Your task to perform on an android device: delete the emails in spam in the gmail app Image 0: 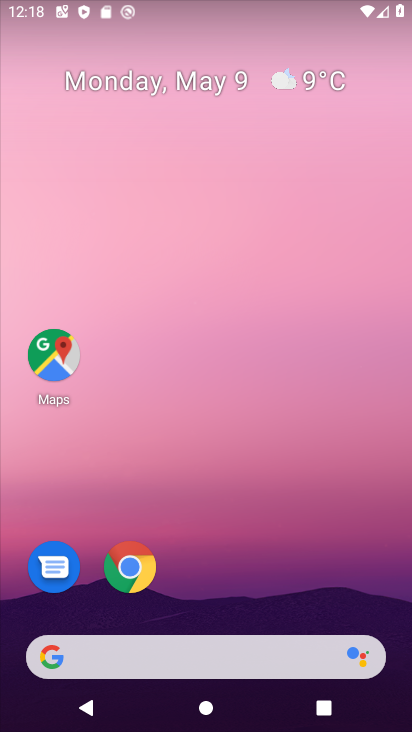
Step 0: drag from (222, 672) to (170, 254)
Your task to perform on an android device: delete the emails in spam in the gmail app Image 1: 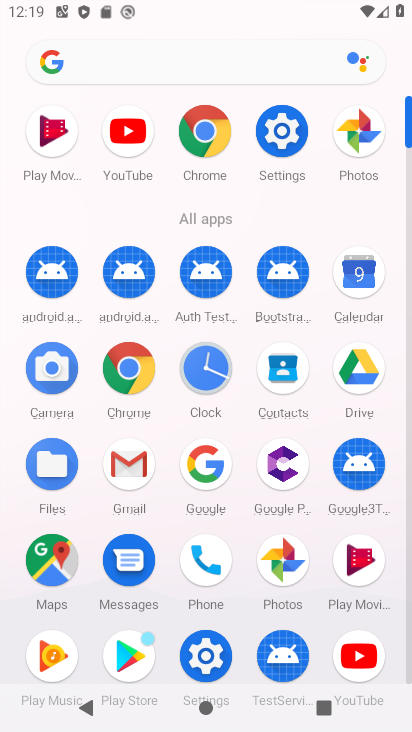
Step 1: click (127, 449)
Your task to perform on an android device: delete the emails in spam in the gmail app Image 2: 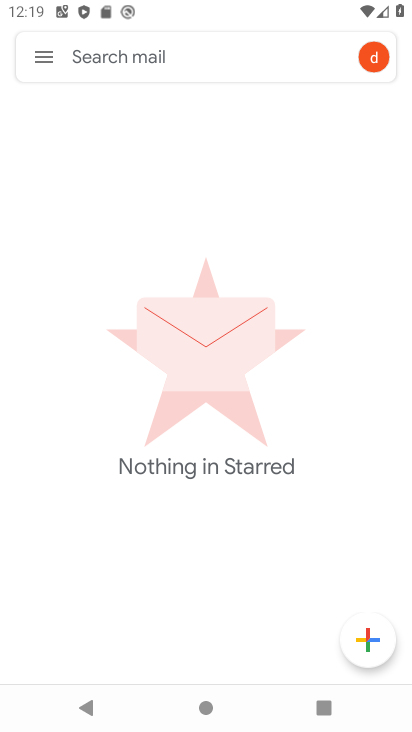
Step 2: click (43, 63)
Your task to perform on an android device: delete the emails in spam in the gmail app Image 3: 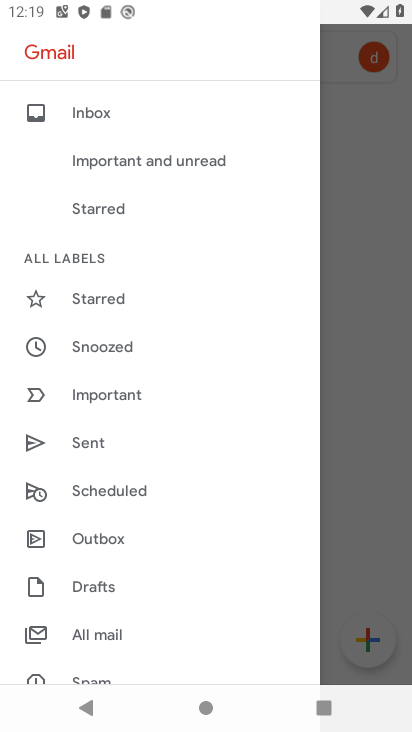
Step 3: click (108, 678)
Your task to perform on an android device: delete the emails in spam in the gmail app Image 4: 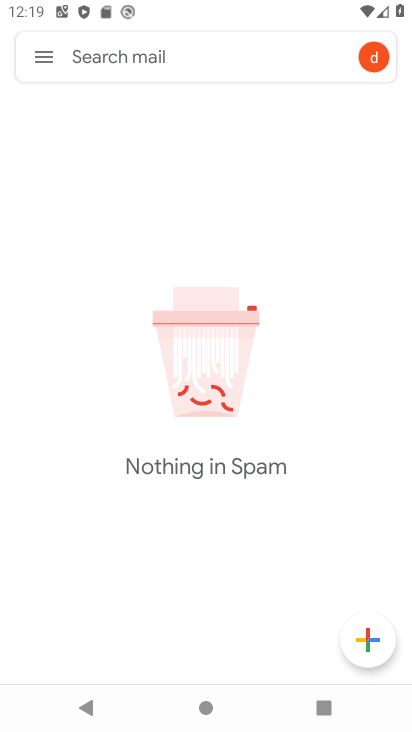
Step 4: task complete